Your task to perform on an android device: delete a single message in the gmail app Image 0: 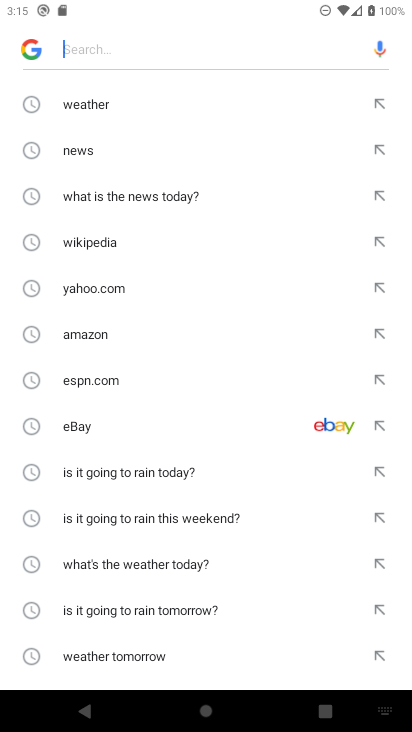
Step 0: press back button
Your task to perform on an android device: delete a single message in the gmail app Image 1: 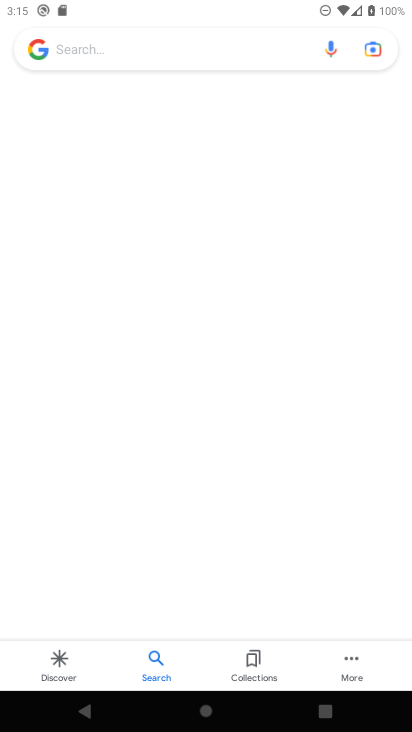
Step 1: press back button
Your task to perform on an android device: delete a single message in the gmail app Image 2: 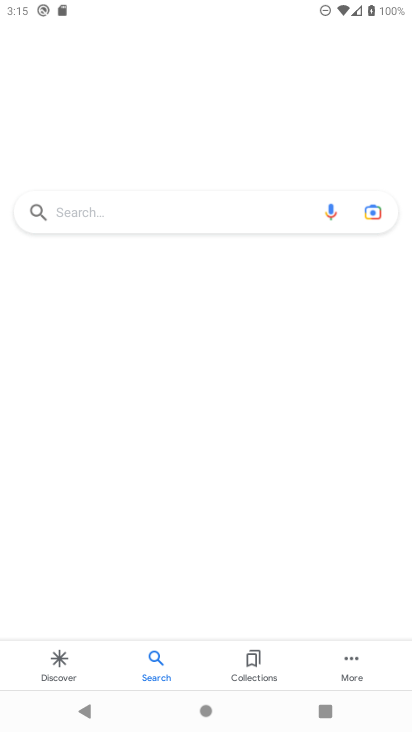
Step 2: press back button
Your task to perform on an android device: delete a single message in the gmail app Image 3: 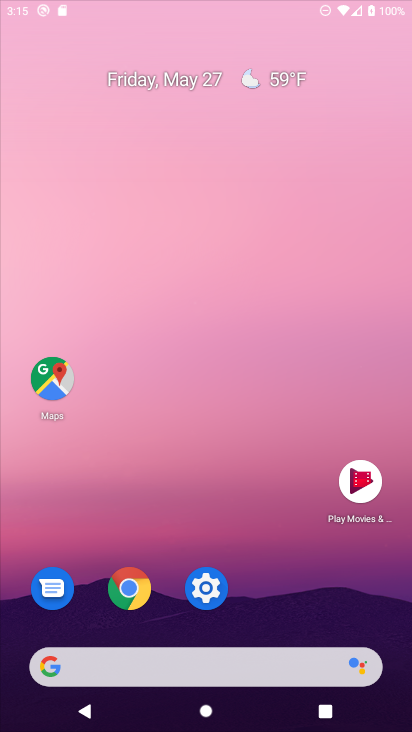
Step 3: press back button
Your task to perform on an android device: delete a single message in the gmail app Image 4: 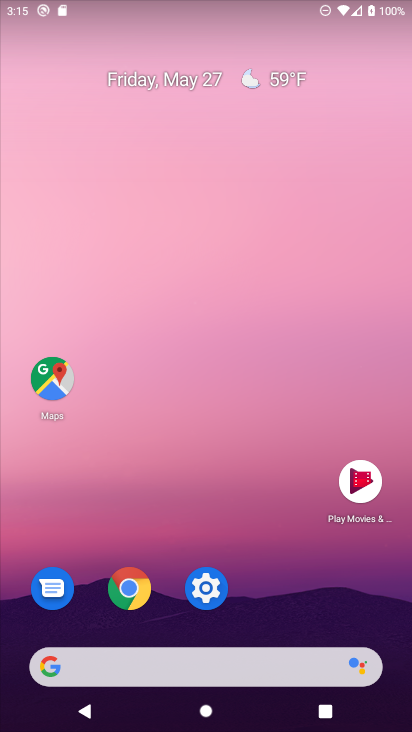
Step 4: press home button
Your task to perform on an android device: delete a single message in the gmail app Image 5: 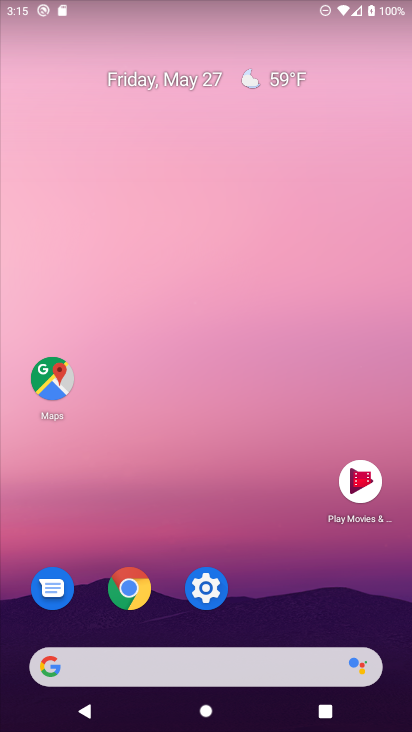
Step 5: drag from (338, 526) to (141, 33)
Your task to perform on an android device: delete a single message in the gmail app Image 6: 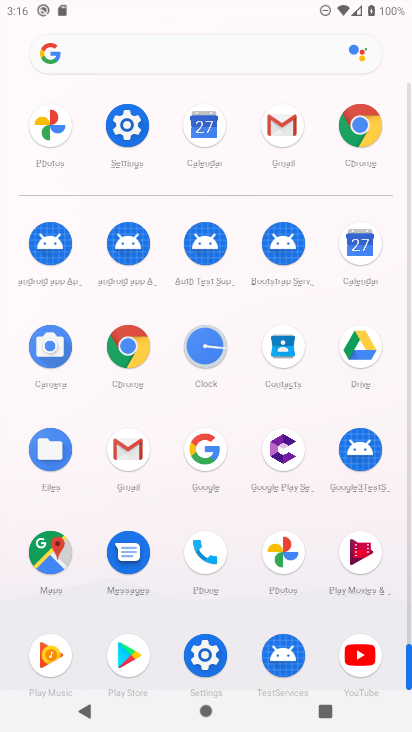
Step 6: click (125, 447)
Your task to perform on an android device: delete a single message in the gmail app Image 7: 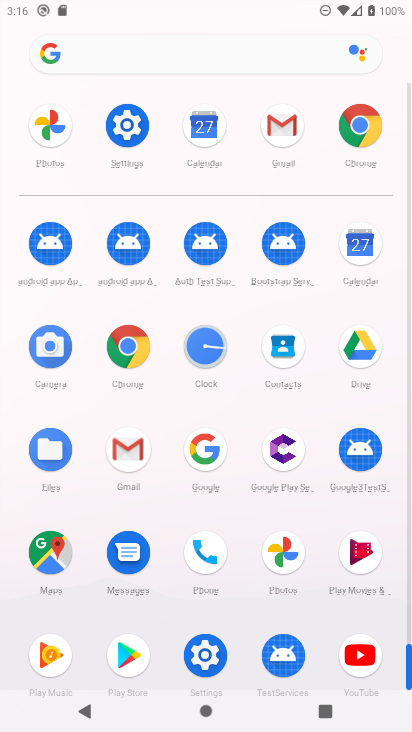
Step 7: click (125, 447)
Your task to perform on an android device: delete a single message in the gmail app Image 8: 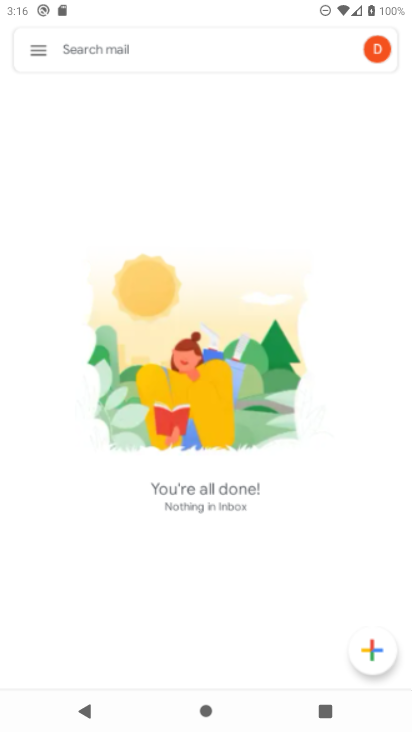
Step 8: click (125, 447)
Your task to perform on an android device: delete a single message in the gmail app Image 9: 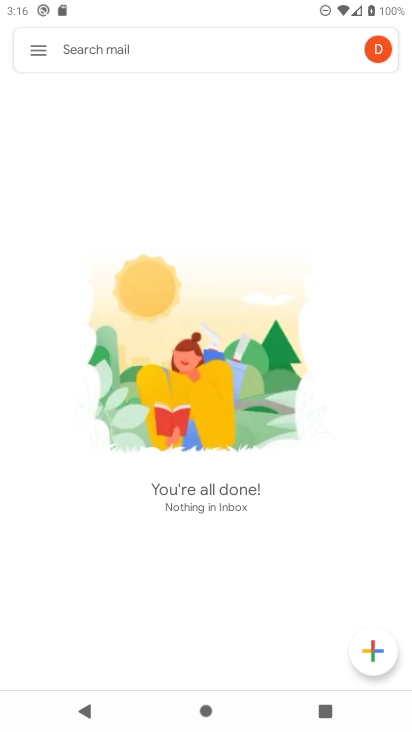
Step 9: click (125, 447)
Your task to perform on an android device: delete a single message in the gmail app Image 10: 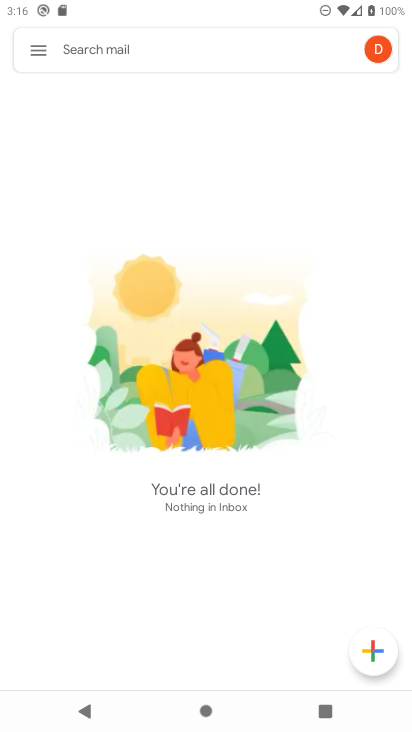
Step 10: click (118, 451)
Your task to perform on an android device: delete a single message in the gmail app Image 11: 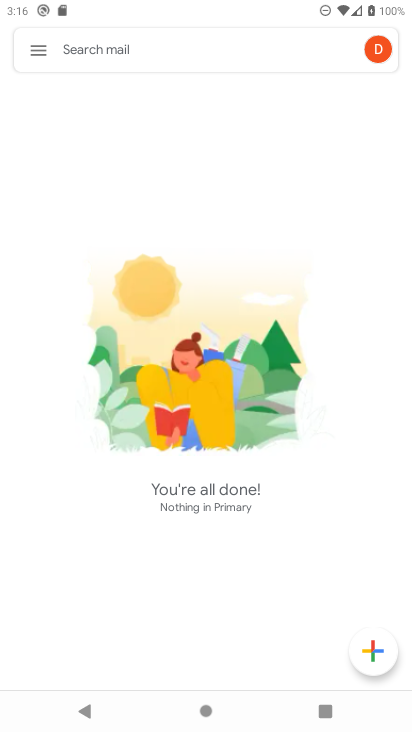
Step 11: click (45, 50)
Your task to perform on an android device: delete a single message in the gmail app Image 12: 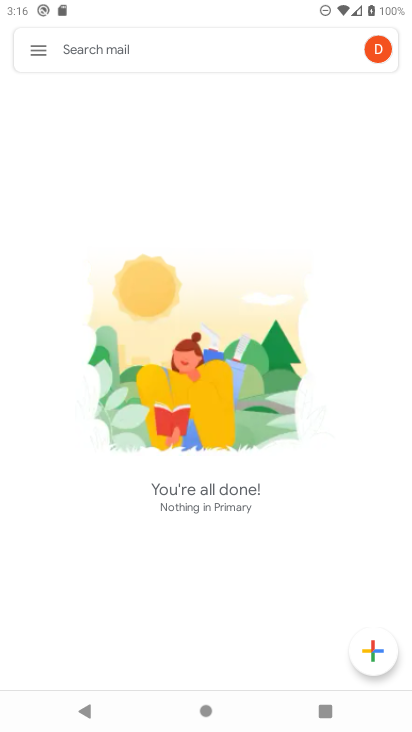
Step 12: click (34, 60)
Your task to perform on an android device: delete a single message in the gmail app Image 13: 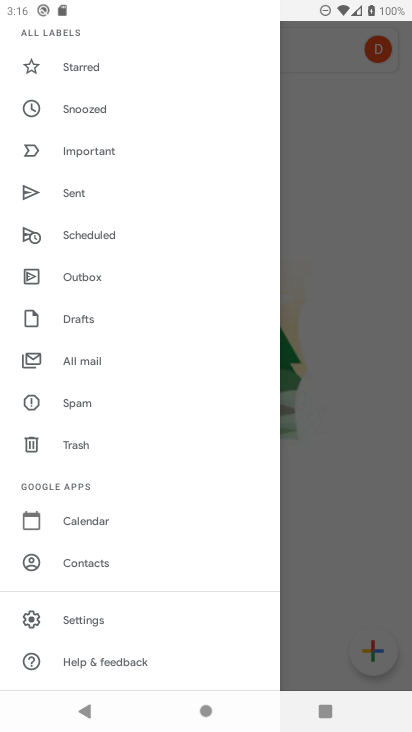
Step 13: click (80, 358)
Your task to perform on an android device: delete a single message in the gmail app Image 14: 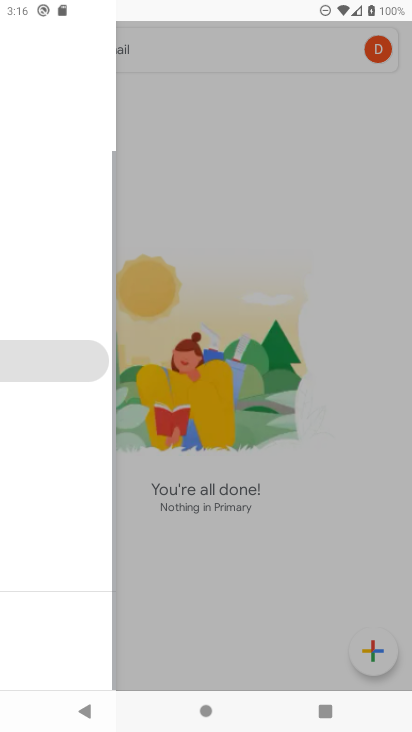
Step 14: click (80, 358)
Your task to perform on an android device: delete a single message in the gmail app Image 15: 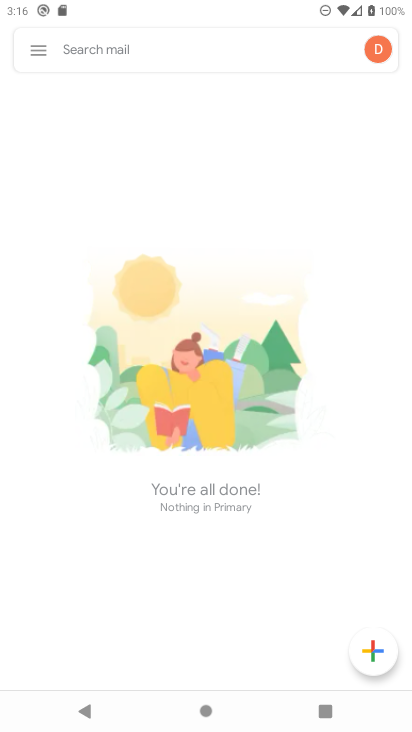
Step 15: click (80, 358)
Your task to perform on an android device: delete a single message in the gmail app Image 16: 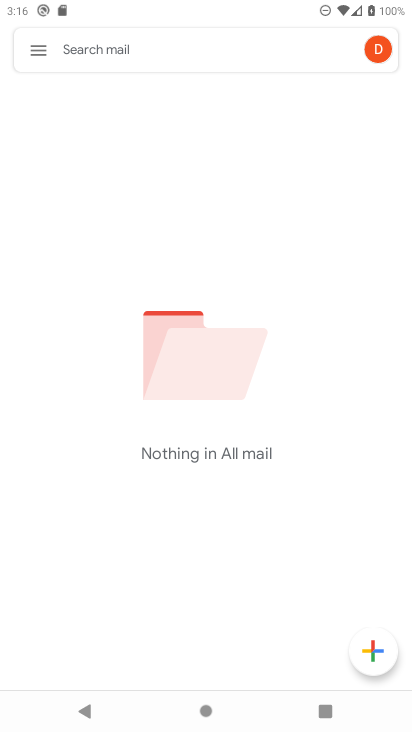
Step 16: click (80, 359)
Your task to perform on an android device: delete a single message in the gmail app Image 17: 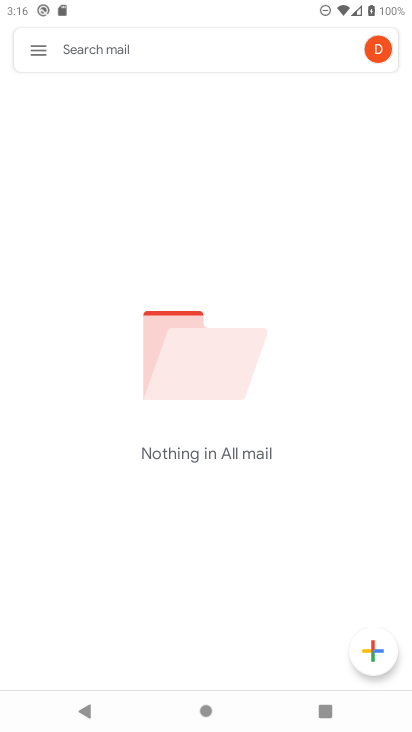
Step 17: click (80, 359)
Your task to perform on an android device: delete a single message in the gmail app Image 18: 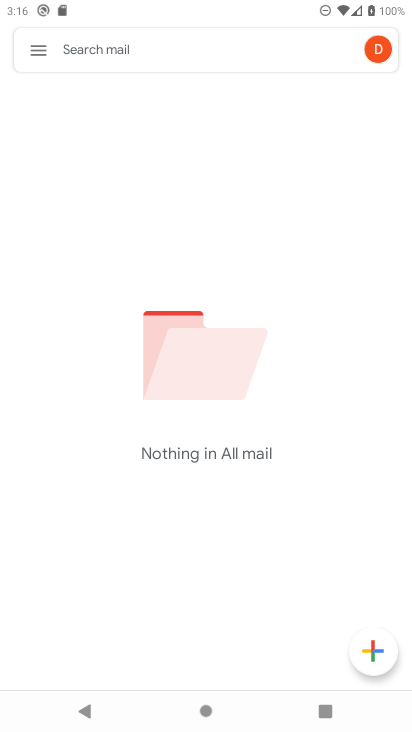
Step 18: task complete